Your task to perform on an android device: Go to wifi settings Image 0: 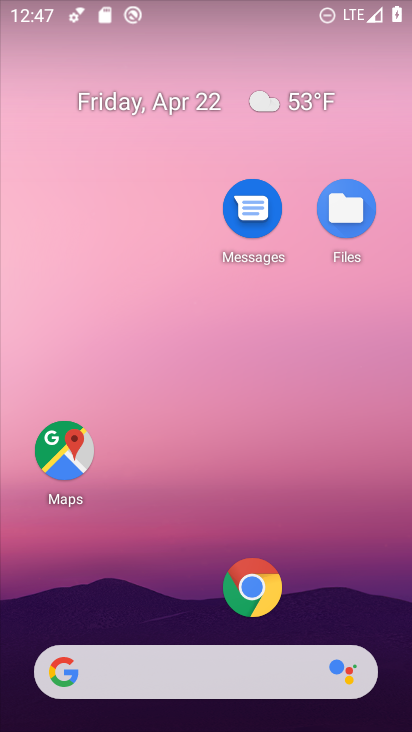
Step 0: drag from (150, 622) to (202, 269)
Your task to perform on an android device: Go to wifi settings Image 1: 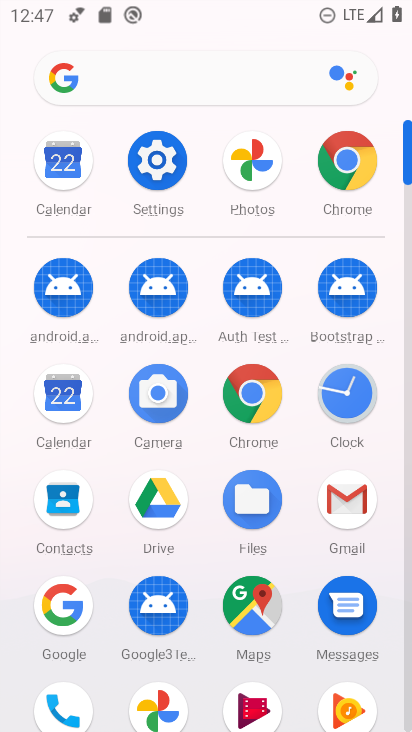
Step 1: click (159, 181)
Your task to perform on an android device: Go to wifi settings Image 2: 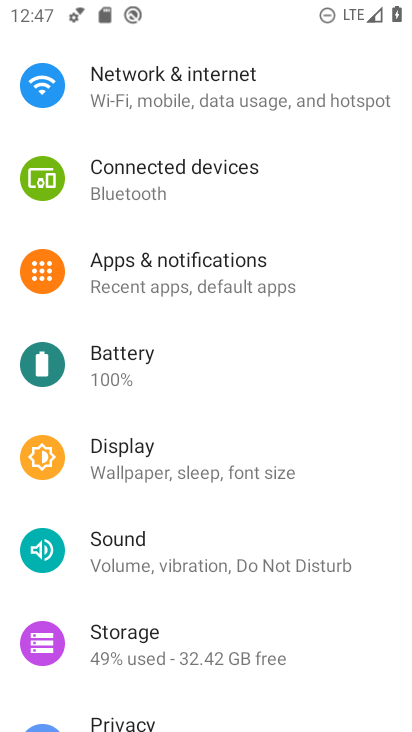
Step 2: click (205, 101)
Your task to perform on an android device: Go to wifi settings Image 3: 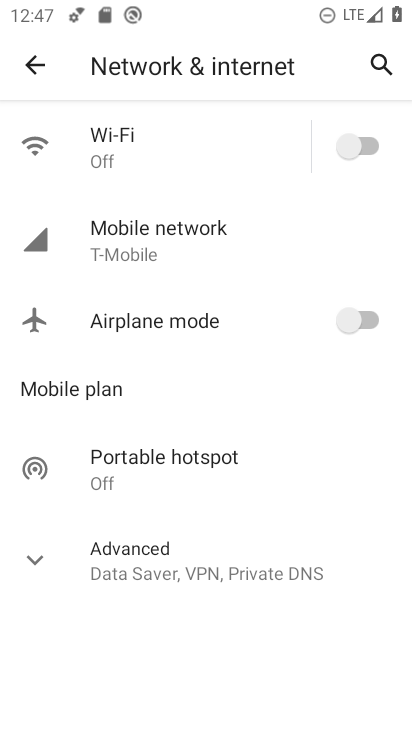
Step 3: click (199, 163)
Your task to perform on an android device: Go to wifi settings Image 4: 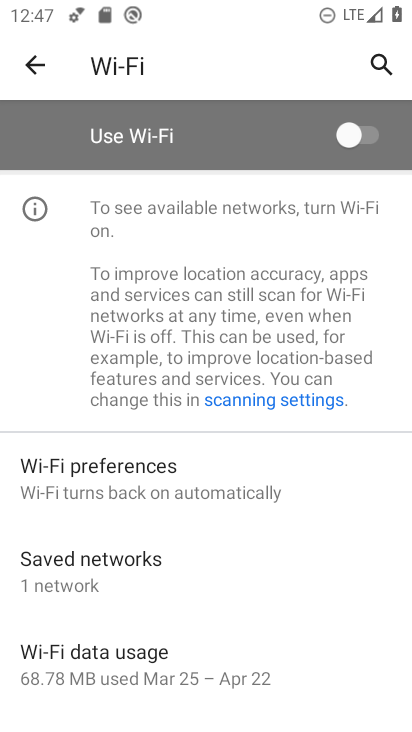
Step 4: task complete